Your task to perform on an android device: open app "DuckDuckGo Privacy Browser" (install if not already installed) Image 0: 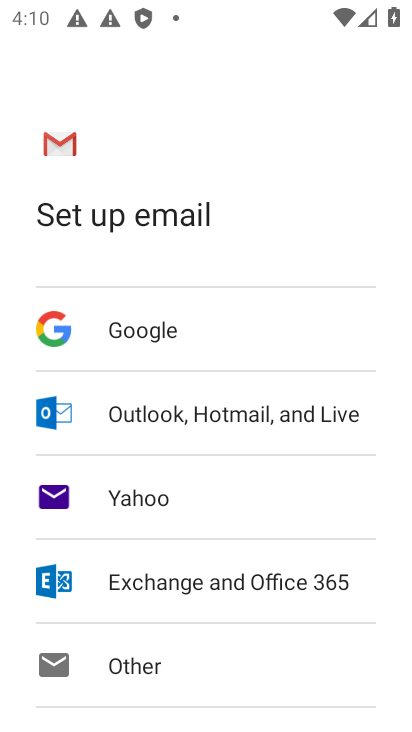
Step 0: press home button
Your task to perform on an android device: open app "DuckDuckGo Privacy Browser" (install if not already installed) Image 1: 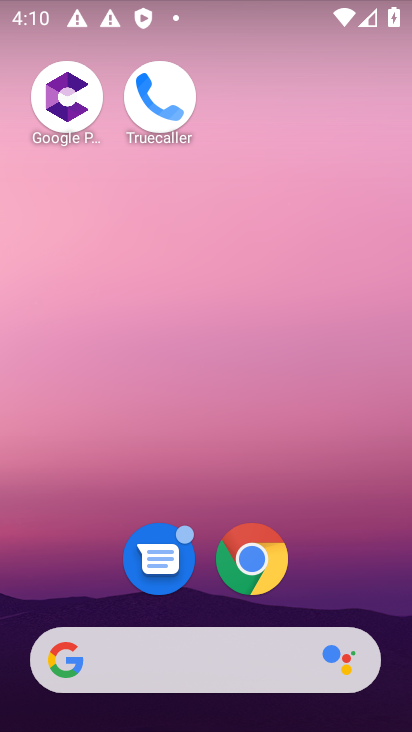
Step 1: drag from (198, 615) to (235, 4)
Your task to perform on an android device: open app "DuckDuckGo Privacy Browser" (install if not already installed) Image 2: 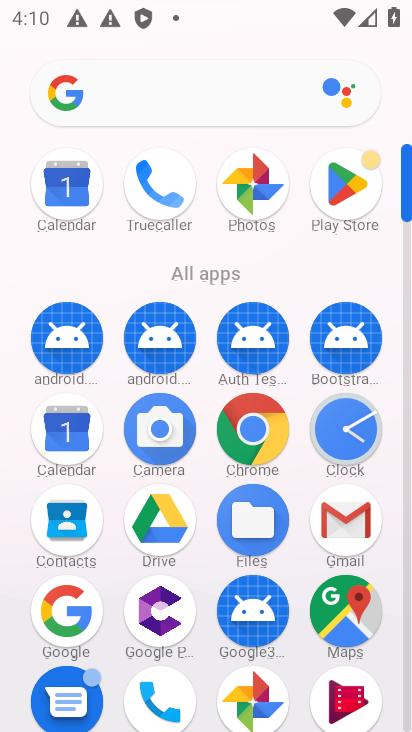
Step 2: click (331, 208)
Your task to perform on an android device: open app "DuckDuckGo Privacy Browser" (install if not already installed) Image 3: 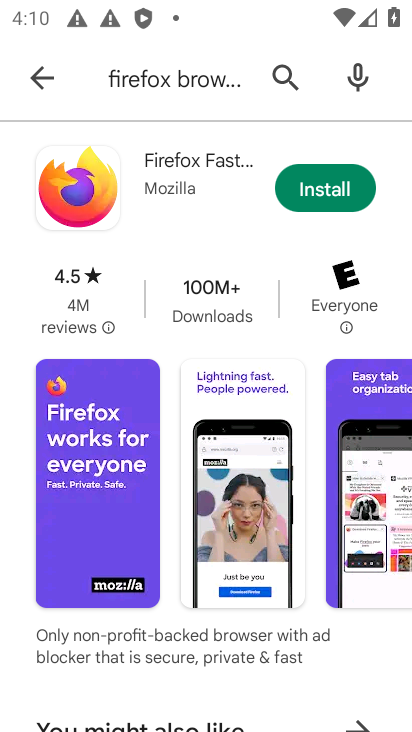
Step 3: click (149, 95)
Your task to perform on an android device: open app "DuckDuckGo Privacy Browser" (install if not already installed) Image 4: 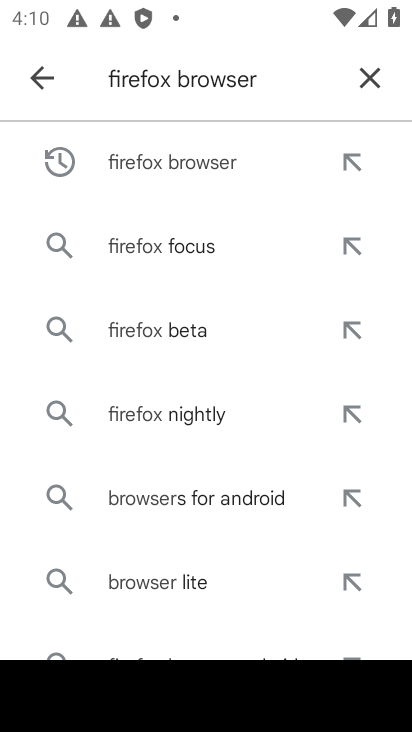
Step 4: click (361, 80)
Your task to perform on an android device: open app "DuckDuckGo Privacy Browser" (install if not already installed) Image 5: 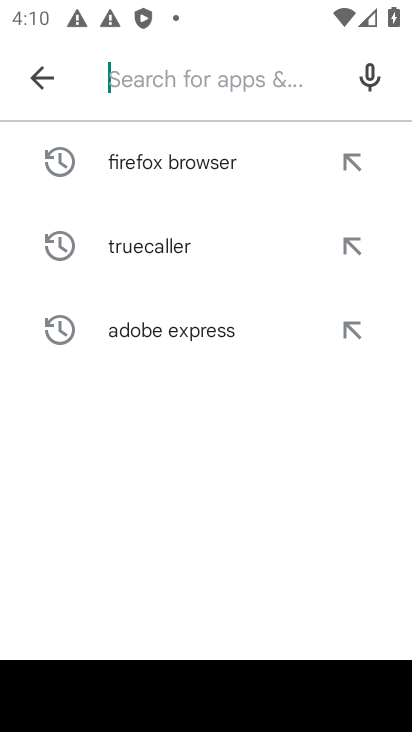
Step 5: type "duckduckgo"
Your task to perform on an android device: open app "DuckDuckGo Privacy Browser" (install if not already installed) Image 6: 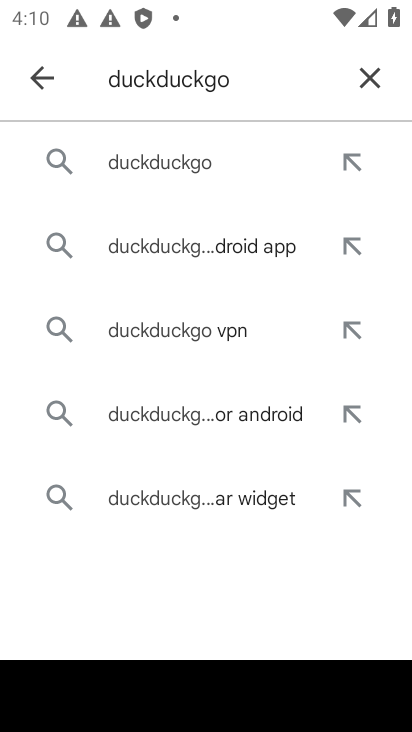
Step 6: click (137, 175)
Your task to perform on an android device: open app "DuckDuckGo Privacy Browser" (install if not already installed) Image 7: 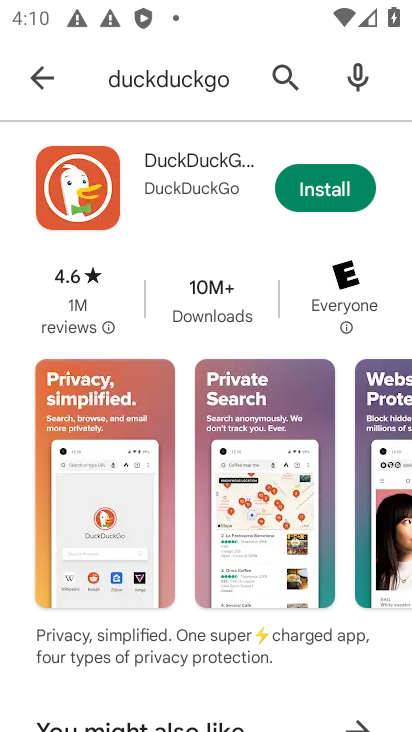
Step 7: click (324, 198)
Your task to perform on an android device: open app "DuckDuckGo Privacy Browser" (install if not already installed) Image 8: 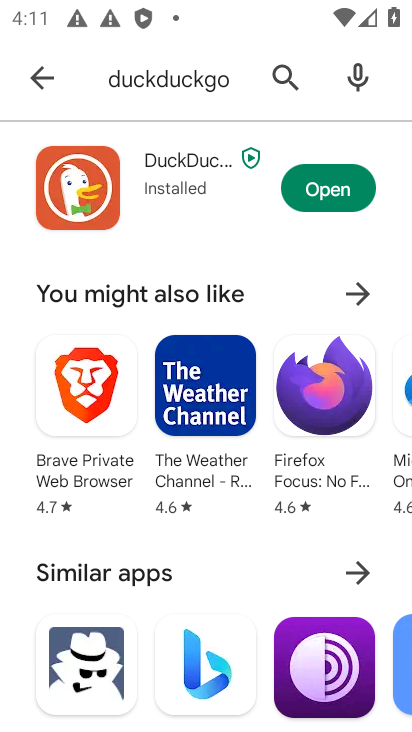
Step 8: click (320, 167)
Your task to perform on an android device: open app "DuckDuckGo Privacy Browser" (install if not already installed) Image 9: 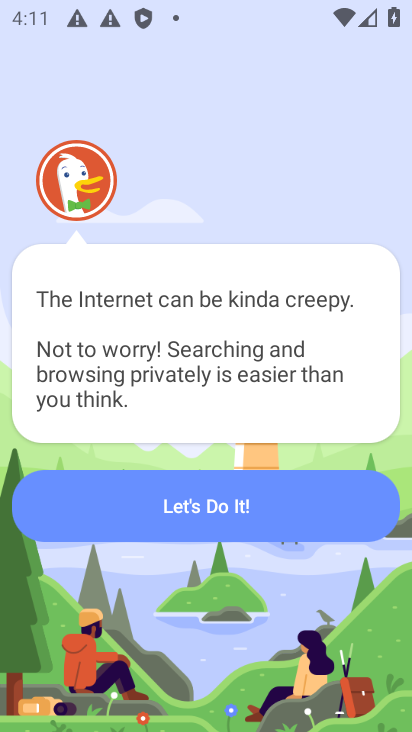
Step 9: drag from (249, 450) to (266, 227)
Your task to perform on an android device: open app "DuckDuckGo Privacy Browser" (install if not already installed) Image 10: 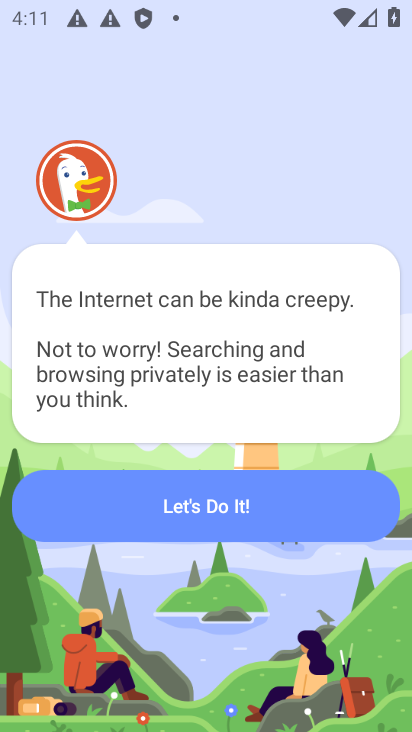
Step 10: click (307, 509)
Your task to perform on an android device: open app "DuckDuckGo Privacy Browser" (install if not already installed) Image 11: 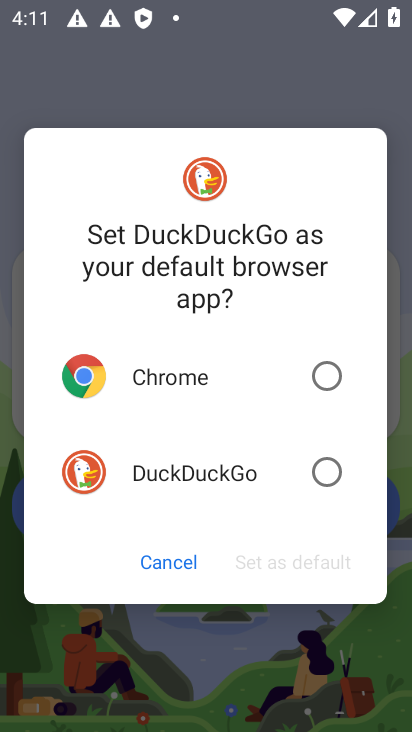
Step 11: click (318, 480)
Your task to perform on an android device: open app "DuckDuckGo Privacy Browser" (install if not already installed) Image 12: 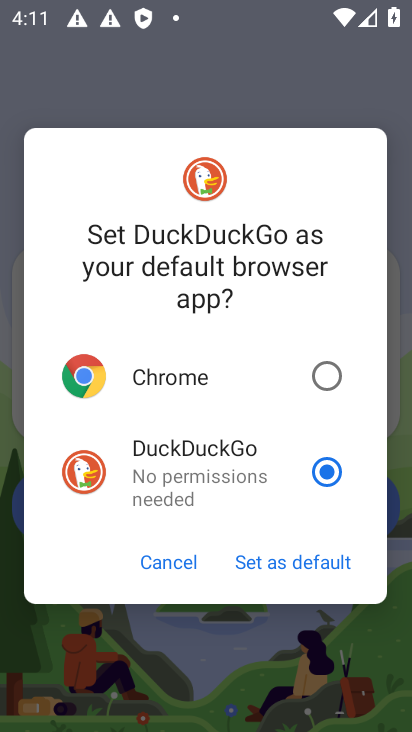
Step 12: click (305, 573)
Your task to perform on an android device: open app "DuckDuckGo Privacy Browser" (install if not already installed) Image 13: 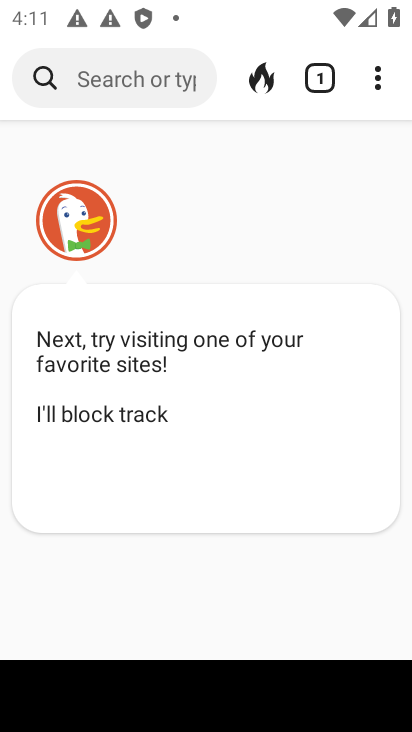
Step 13: task complete